Your task to perform on an android device: toggle priority inbox in the gmail app Image 0: 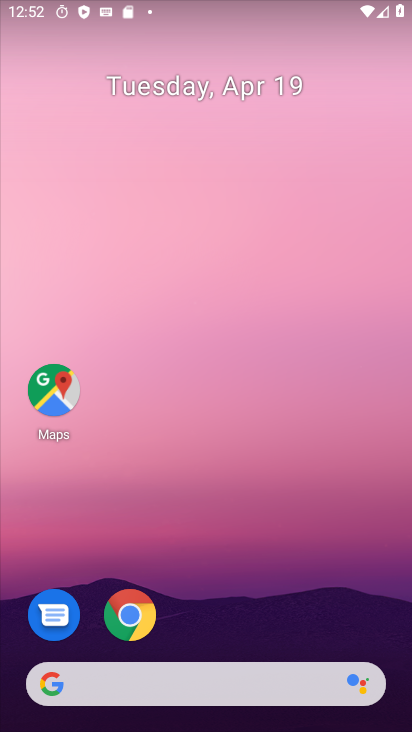
Step 0: drag from (375, 606) to (374, 111)
Your task to perform on an android device: toggle priority inbox in the gmail app Image 1: 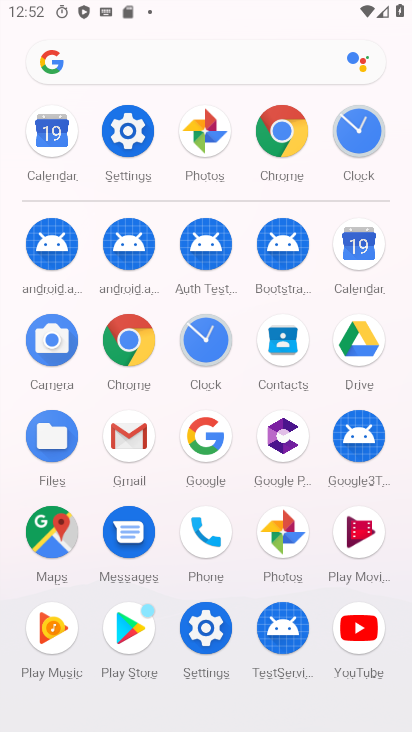
Step 1: click (117, 444)
Your task to perform on an android device: toggle priority inbox in the gmail app Image 2: 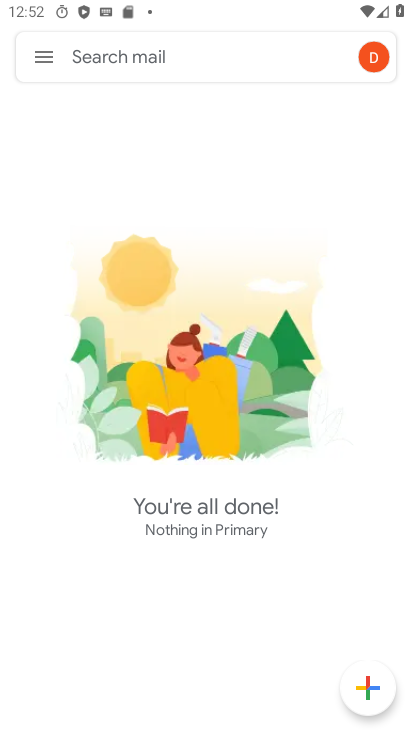
Step 2: click (46, 53)
Your task to perform on an android device: toggle priority inbox in the gmail app Image 3: 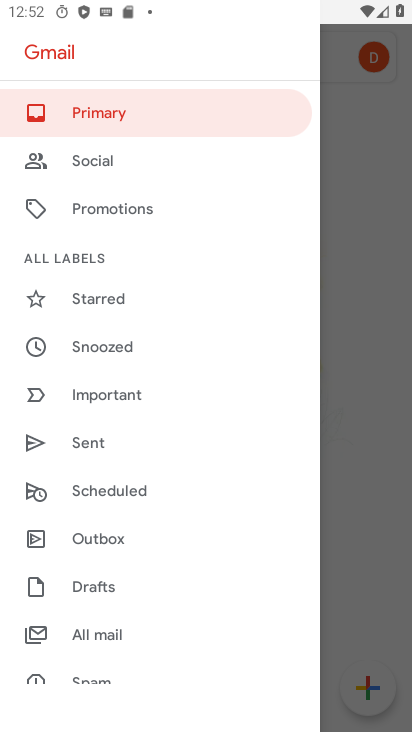
Step 3: drag from (238, 567) to (229, 176)
Your task to perform on an android device: toggle priority inbox in the gmail app Image 4: 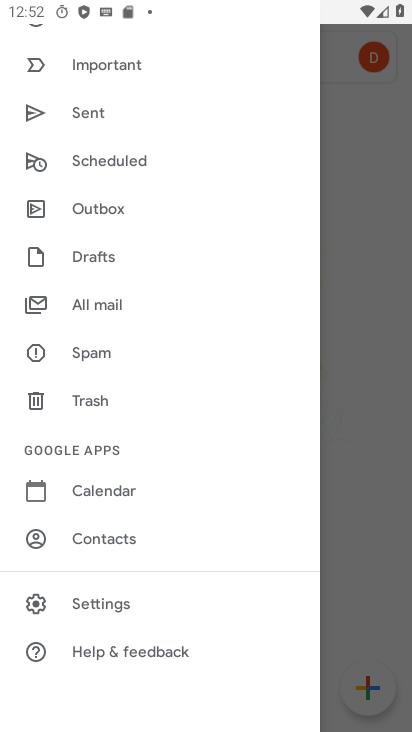
Step 4: click (119, 605)
Your task to perform on an android device: toggle priority inbox in the gmail app Image 5: 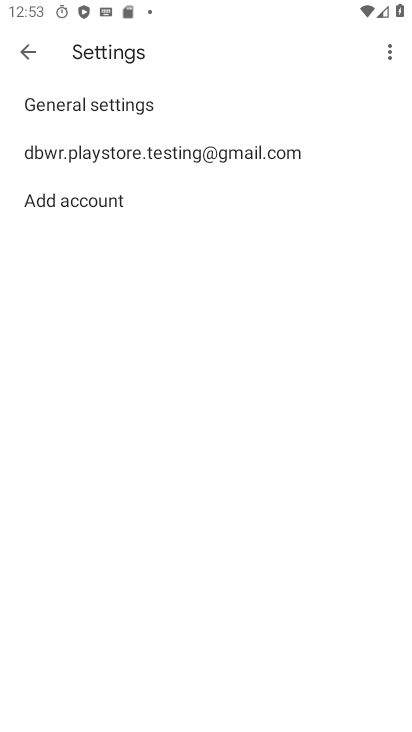
Step 5: click (233, 148)
Your task to perform on an android device: toggle priority inbox in the gmail app Image 6: 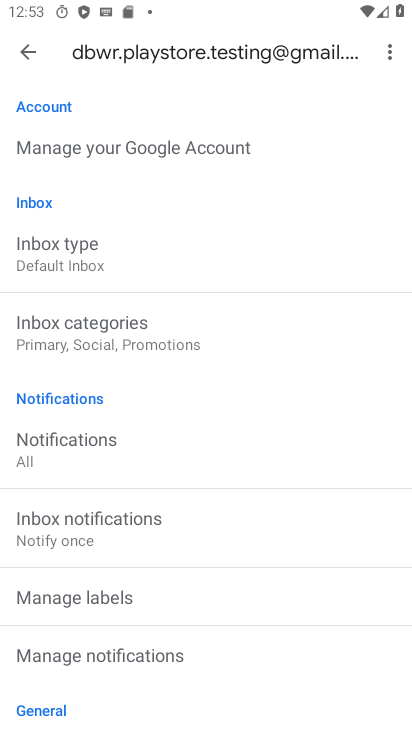
Step 6: drag from (298, 580) to (321, 311)
Your task to perform on an android device: toggle priority inbox in the gmail app Image 7: 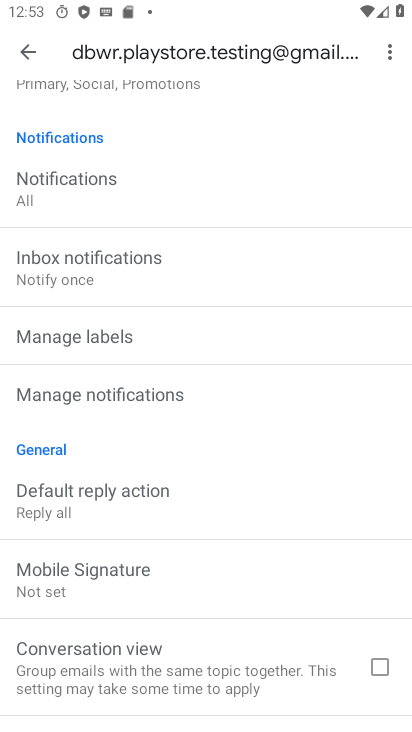
Step 7: drag from (318, 584) to (327, 345)
Your task to perform on an android device: toggle priority inbox in the gmail app Image 8: 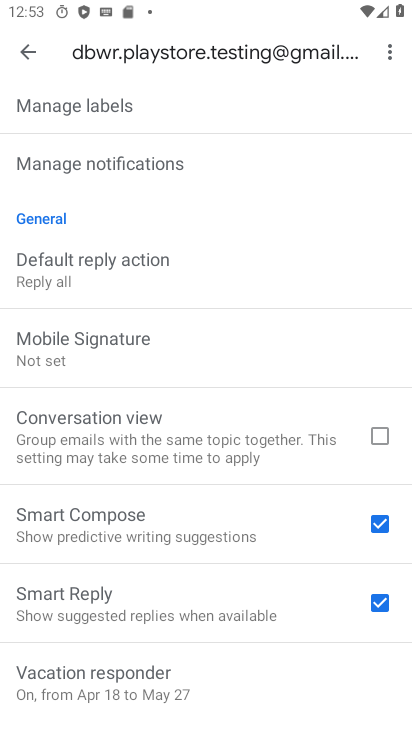
Step 8: drag from (290, 576) to (279, 339)
Your task to perform on an android device: toggle priority inbox in the gmail app Image 9: 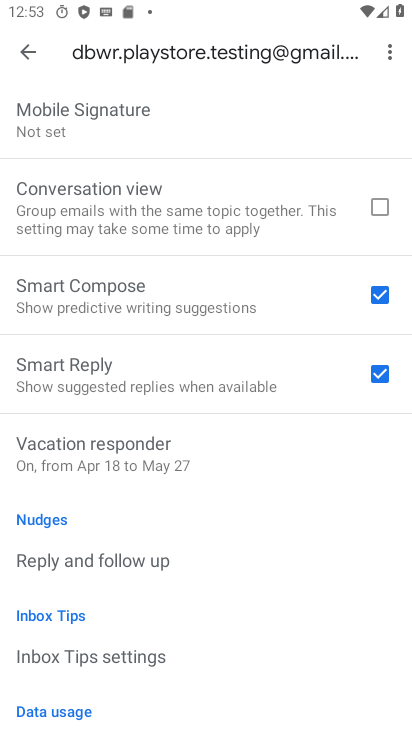
Step 9: drag from (293, 154) to (295, 436)
Your task to perform on an android device: toggle priority inbox in the gmail app Image 10: 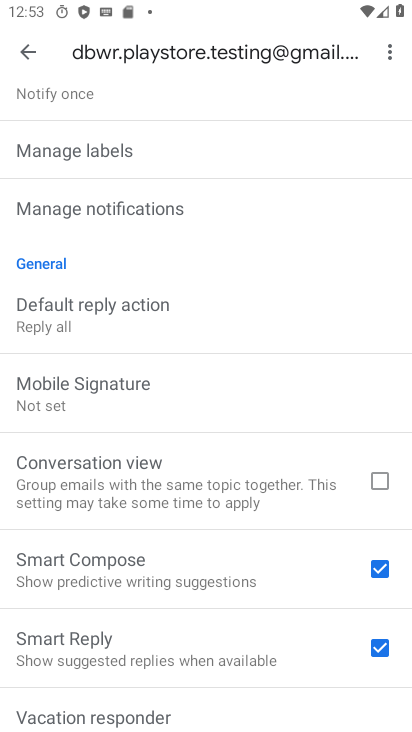
Step 10: drag from (292, 209) to (256, 443)
Your task to perform on an android device: toggle priority inbox in the gmail app Image 11: 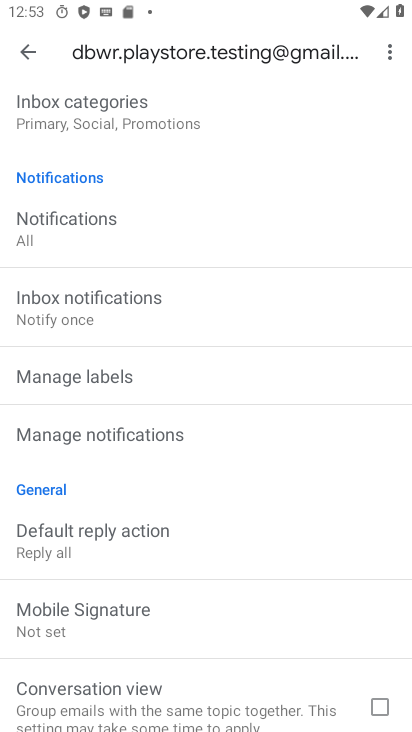
Step 11: drag from (250, 175) to (244, 368)
Your task to perform on an android device: toggle priority inbox in the gmail app Image 12: 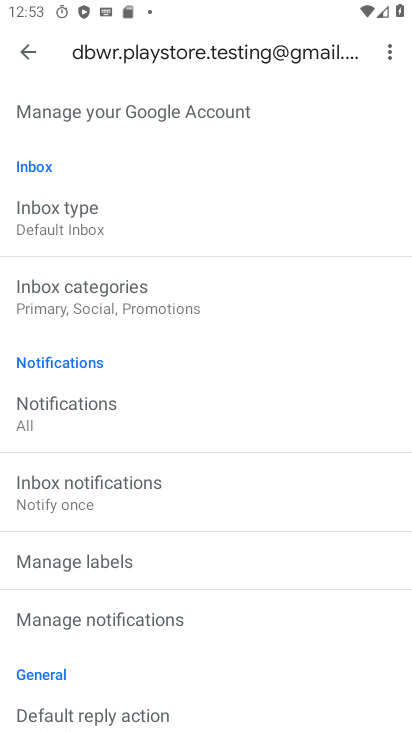
Step 12: click (58, 220)
Your task to perform on an android device: toggle priority inbox in the gmail app Image 13: 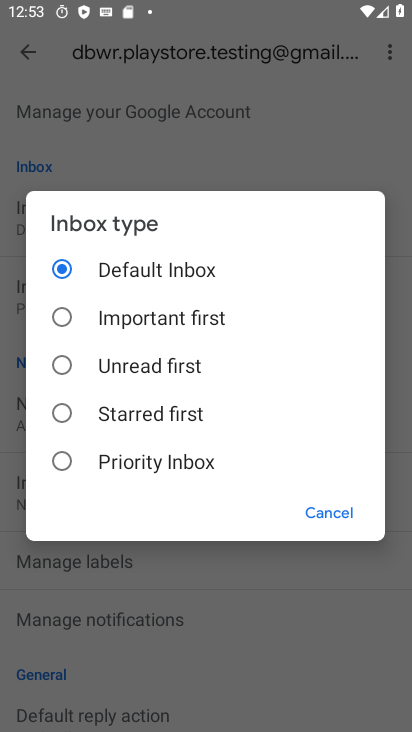
Step 13: click (58, 455)
Your task to perform on an android device: toggle priority inbox in the gmail app Image 14: 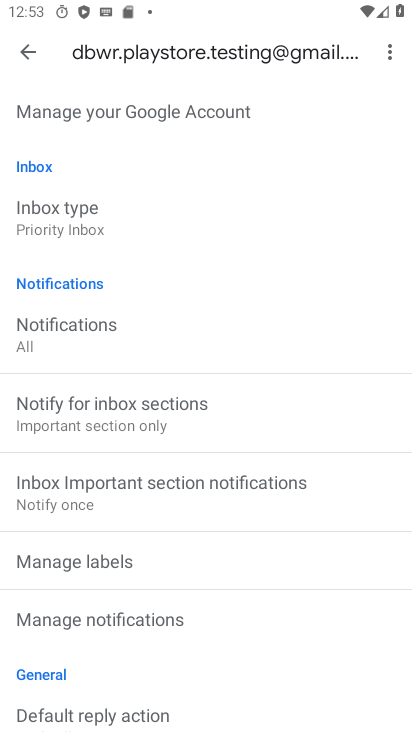
Step 14: task complete